Your task to perform on an android device: check the backup settings in the google photos Image 0: 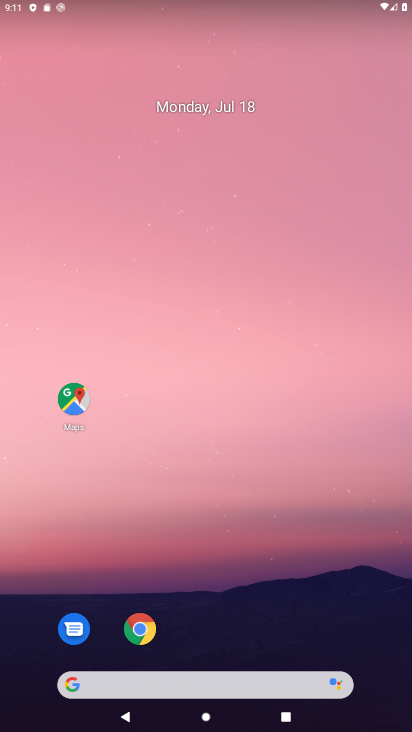
Step 0: drag from (203, 680) to (180, 202)
Your task to perform on an android device: check the backup settings in the google photos Image 1: 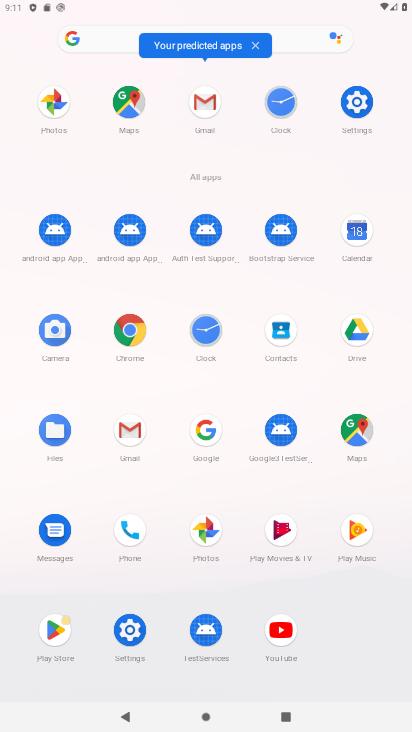
Step 1: click (197, 533)
Your task to perform on an android device: check the backup settings in the google photos Image 2: 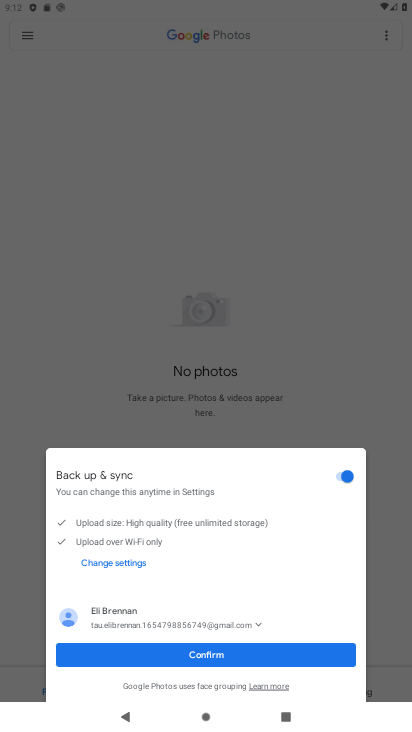
Step 2: press home button
Your task to perform on an android device: check the backup settings in the google photos Image 3: 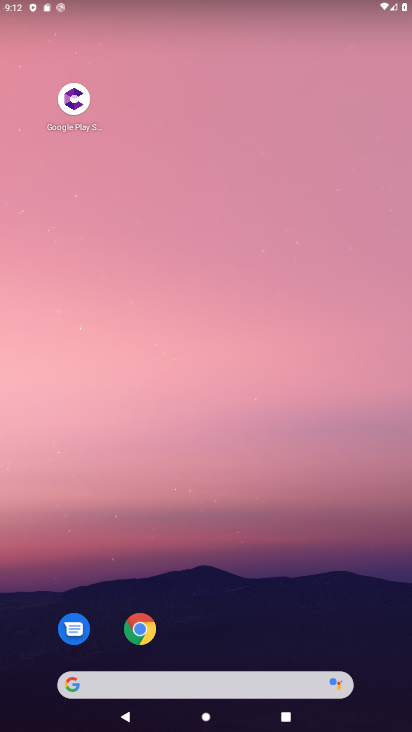
Step 3: drag from (137, 679) to (154, 109)
Your task to perform on an android device: check the backup settings in the google photos Image 4: 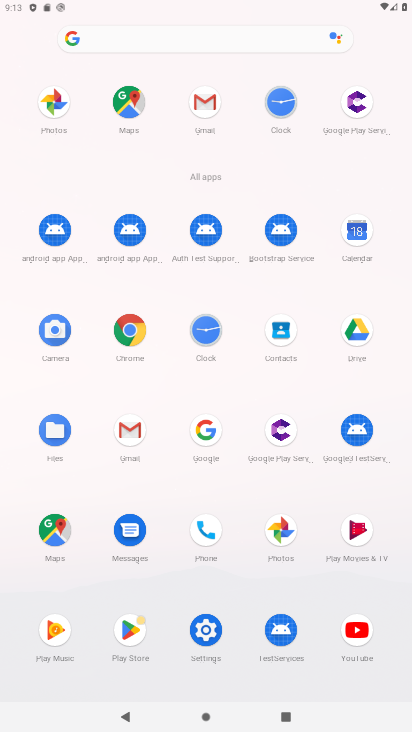
Step 4: click (285, 529)
Your task to perform on an android device: check the backup settings in the google photos Image 5: 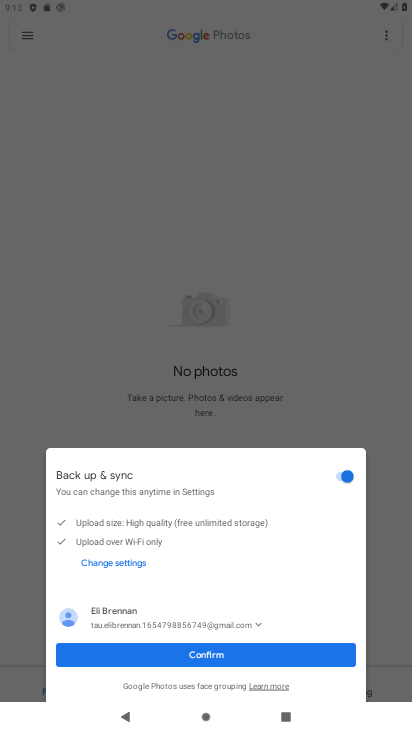
Step 5: click (185, 652)
Your task to perform on an android device: check the backup settings in the google photos Image 6: 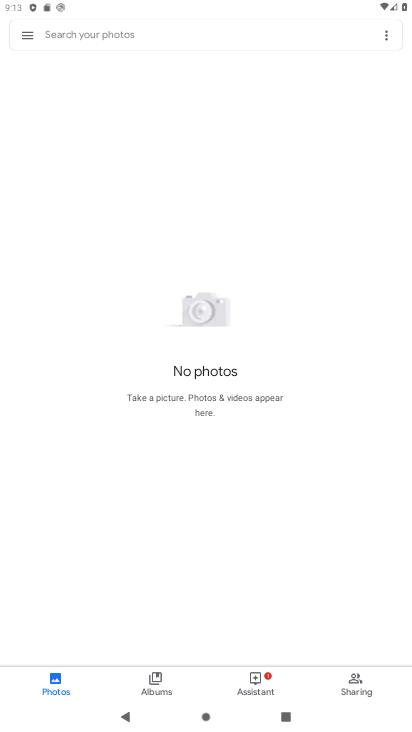
Step 6: click (25, 43)
Your task to perform on an android device: check the backup settings in the google photos Image 7: 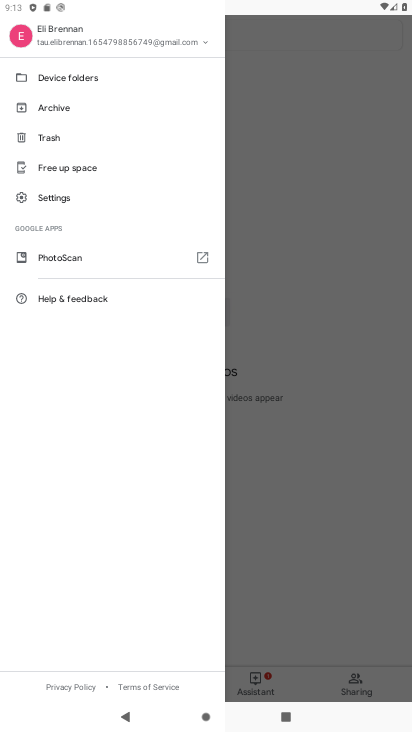
Step 7: click (58, 203)
Your task to perform on an android device: check the backup settings in the google photos Image 8: 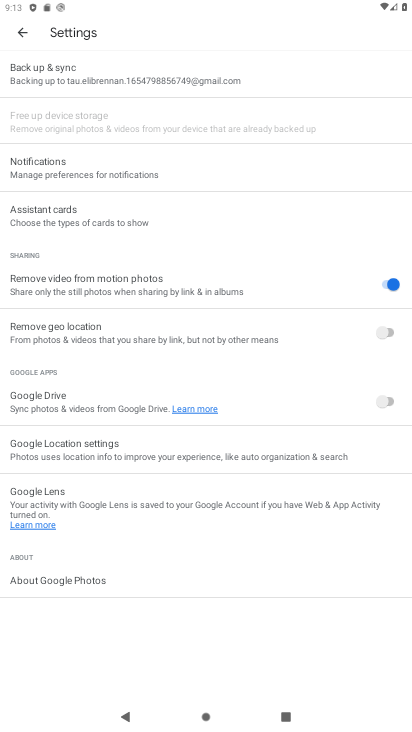
Step 8: click (55, 65)
Your task to perform on an android device: check the backup settings in the google photos Image 9: 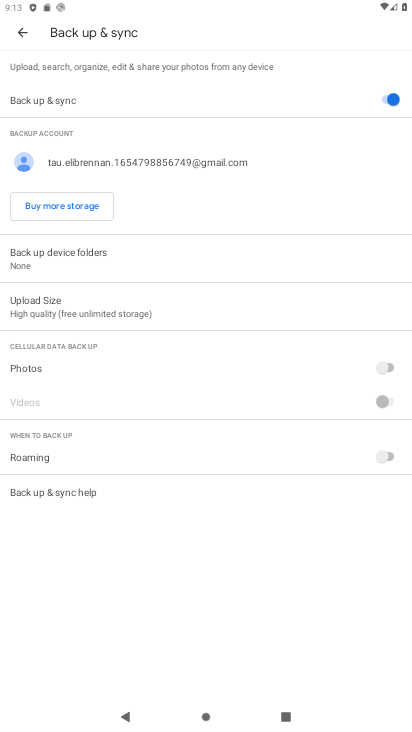
Step 9: task complete